Your task to perform on an android device: Is it going to rain today? Image 0: 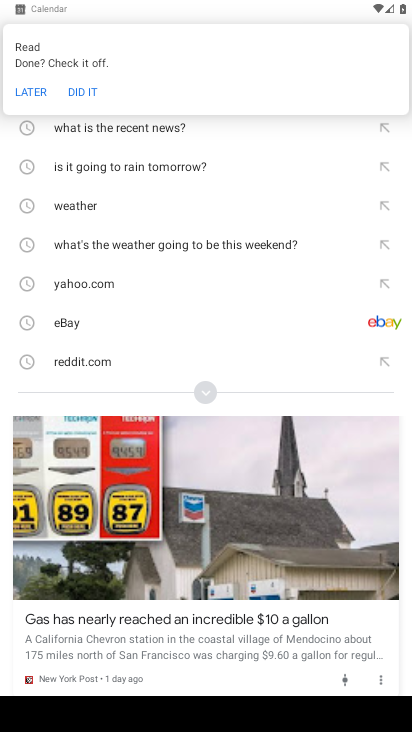
Step 0: click (23, 99)
Your task to perform on an android device: Is it going to rain today? Image 1: 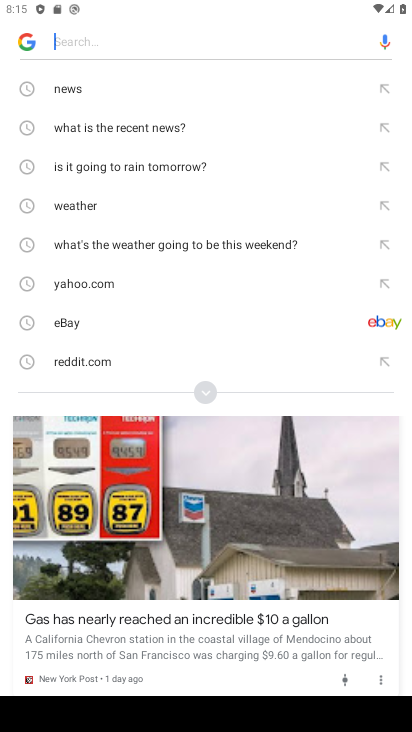
Step 1: click (127, 194)
Your task to perform on an android device: Is it going to rain today? Image 2: 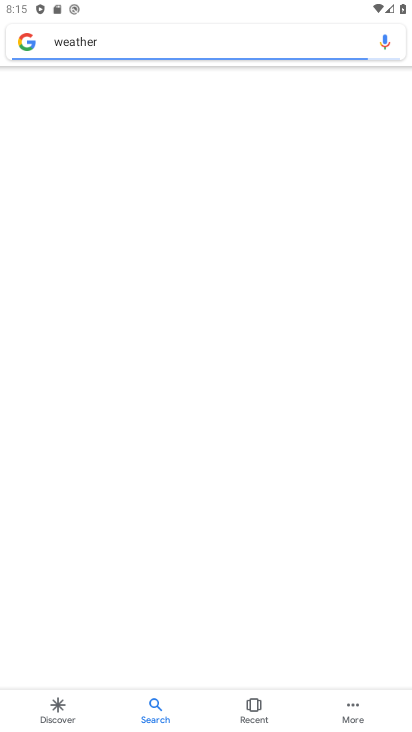
Step 2: task complete